Your task to perform on an android device: change your default location settings in chrome Image 0: 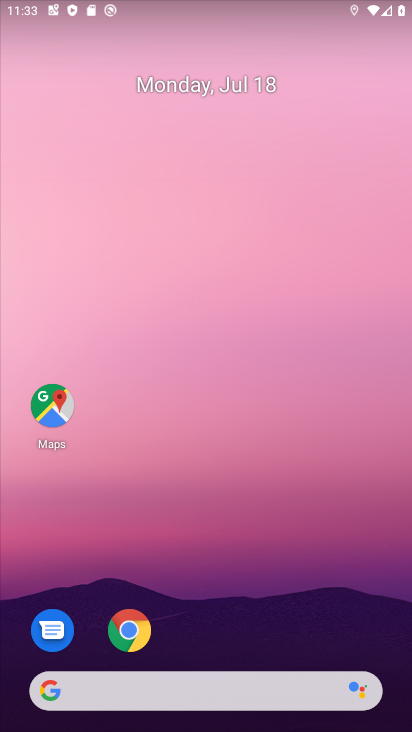
Step 0: drag from (343, 634) to (279, 111)
Your task to perform on an android device: change your default location settings in chrome Image 1: 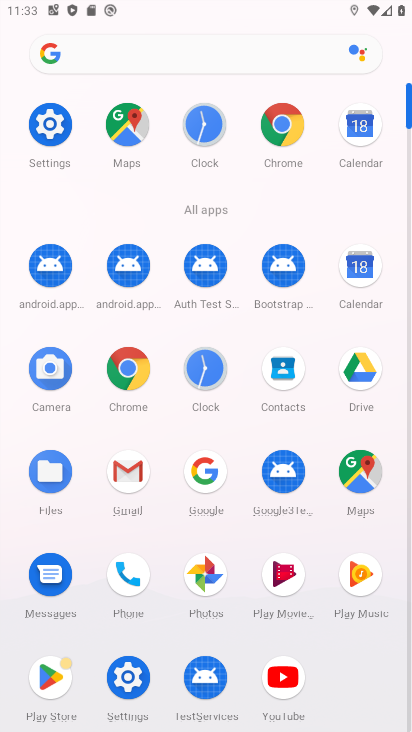
Step 1: click (284, 122)
Your task to perform on an android device: change your default location settings in chrome Image 2: 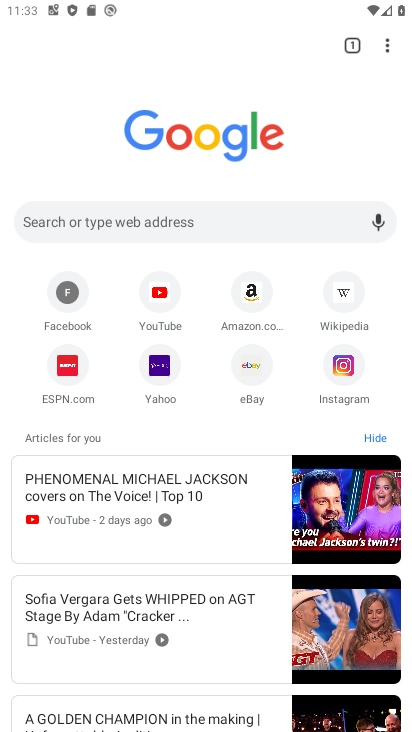
Step 2: click (389, 49)
Your task to perform on an android device: change your default location settings in chrome Image 3: 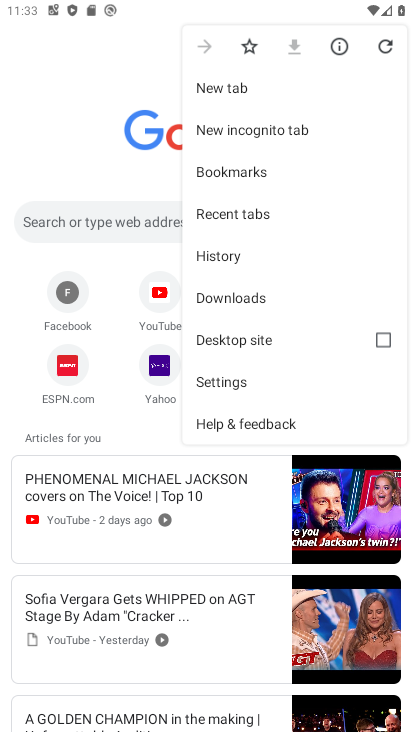
Step 3: click (241, 383)
Your task to perform on an android device: change your default location settings in chrome Image 4: 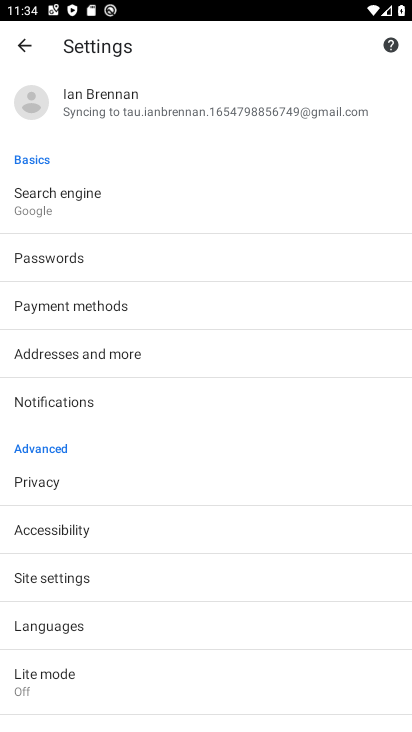
Step 4: click (175, 585)
Your task to perform on an android device: change your default location settings in chrome Image 5: 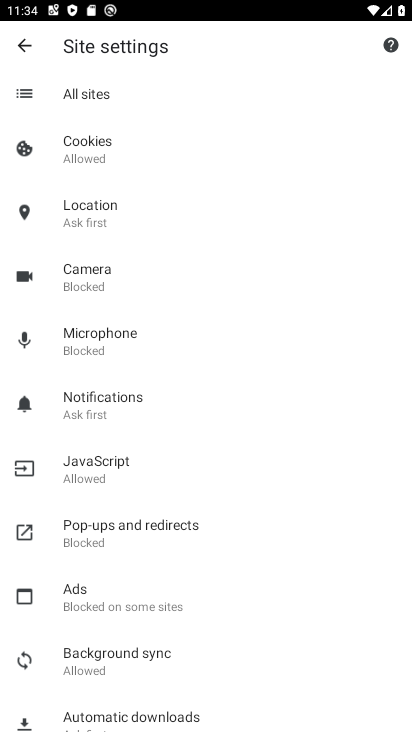
Step 5: click (112, 217)
Your task to perform on an android device: change your default location settings in chrome Image 6: 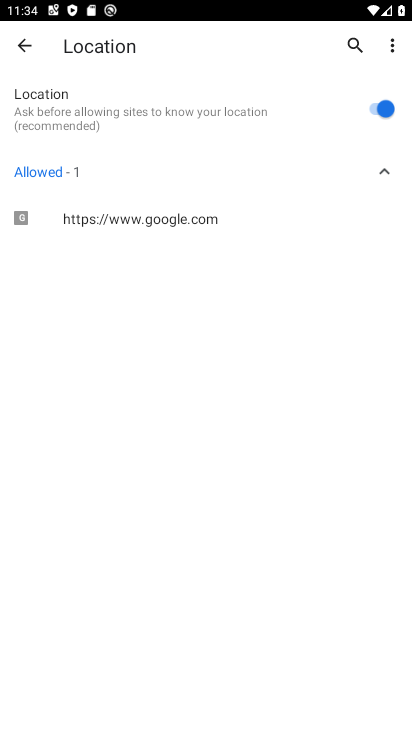
Step 6: task complete